Your task to perform on an android device: set an alarm Image 0: 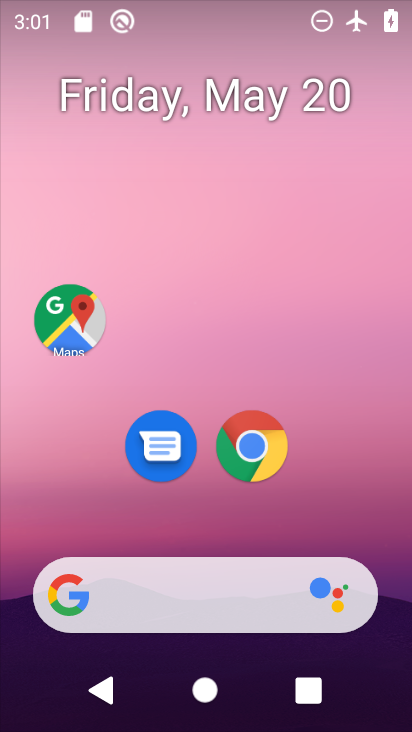
Step 0: drag from (361, 398) to (331, 23)
Your task to perform on an android device: set an alarm Image 1: 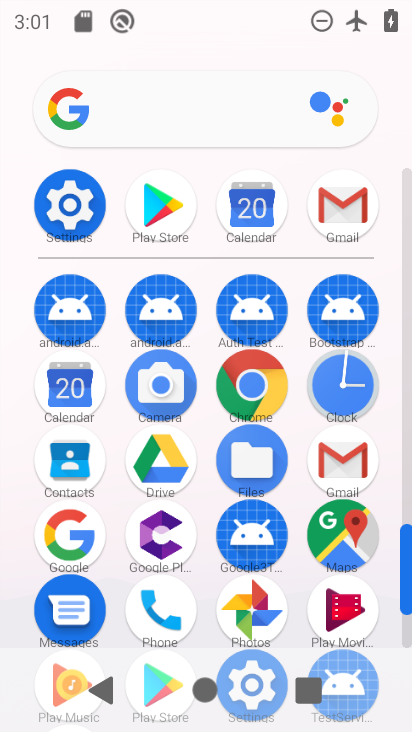
Step 1: click (348, 390)
Your task to perform on an android device: set an alarm Image 2: 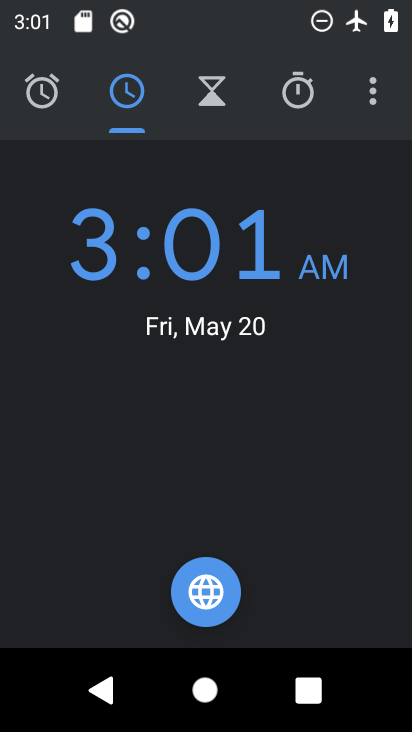
Step 2: click (44, 104)
Your task to perform on an android device: set an alarm Image 3: 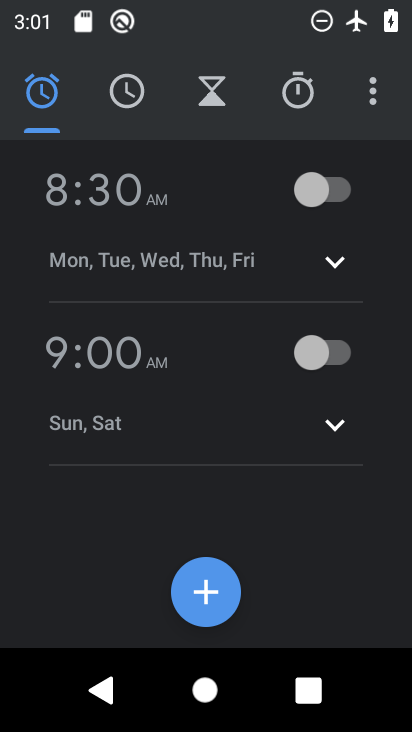
Step 3: click (209, 591)
Your task to perform on an android device: set an alarm Image 4: 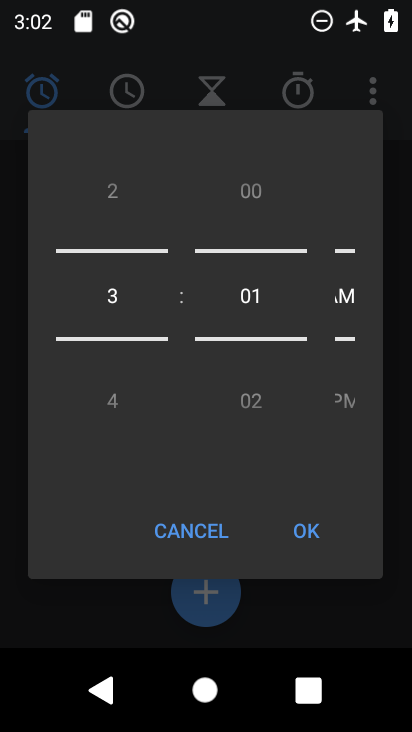
Step 4: drag from (107, 297) to (121, 175)
Your task to perform on an android device: set an alarm Image 5: 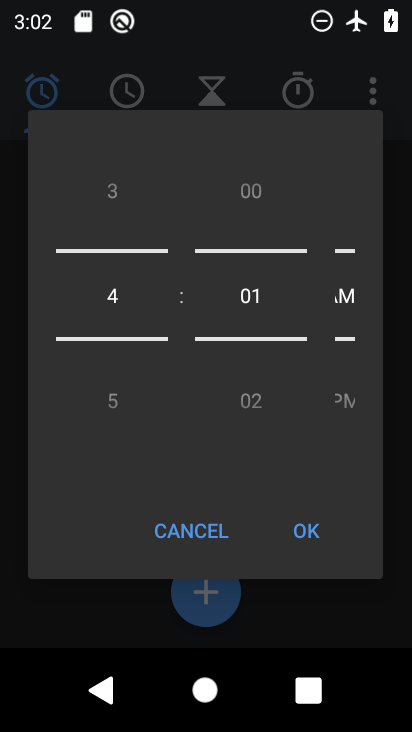
Step 5: drag from (264, 283) to (256, 377)
Your task to perform on an android device: set an alarm Image 6: 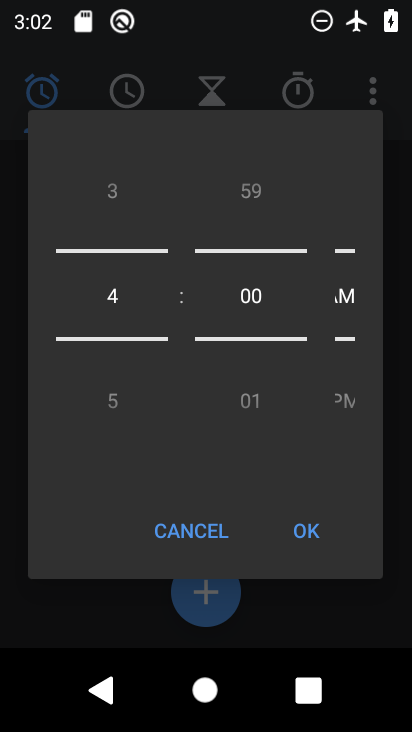
Step 6: click (314, 529)
Your task to perform on an android device: set an alarm Image 7: 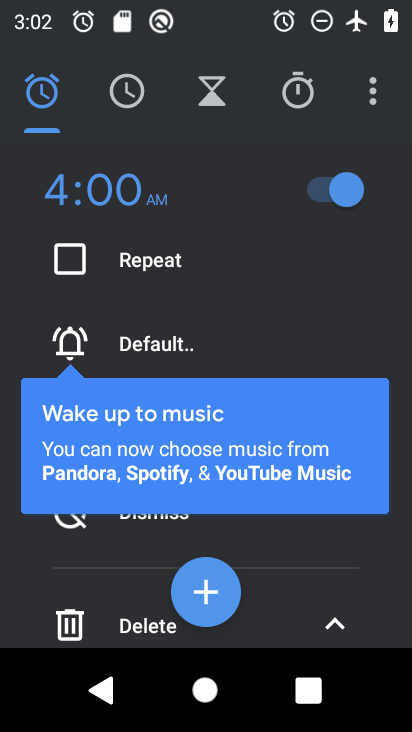
Step 7: task complete